Your task to perform on an android device: Open Chrome and go to settings Image 0: 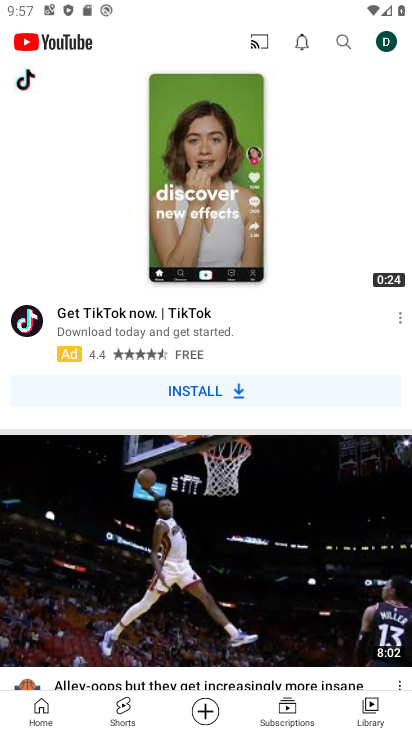
Step 0: press home button
Your task to perform on an android device: Open Chrome and go to settings Image 1: 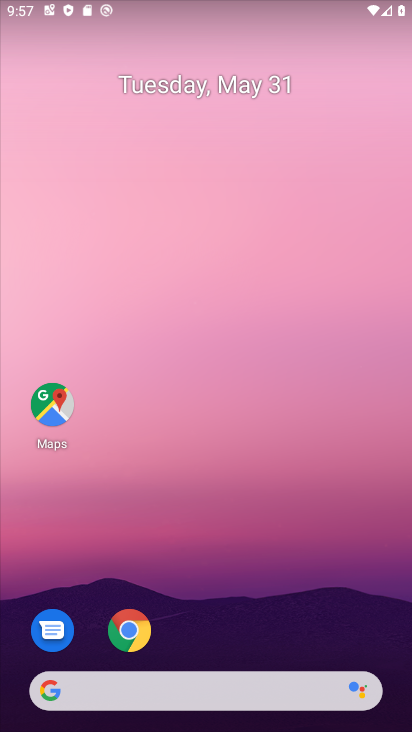
Step 1: drag from (228, 593) to (283, 135)
Your task to perform on an android device: Open Chrome and go to settings Image 2: 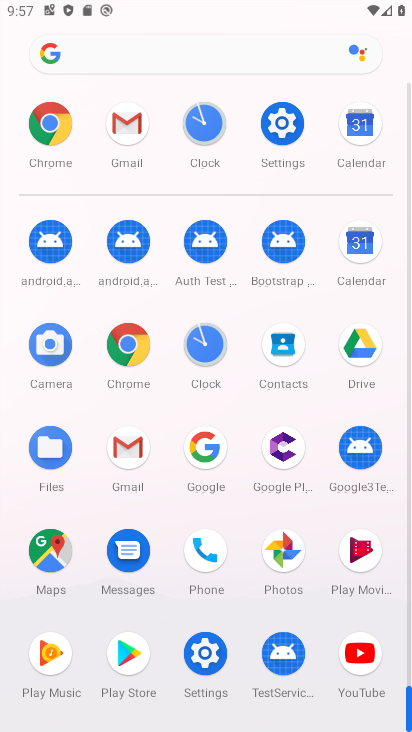
Step 2: click (121, 361)
Your task to perform on an android device: Open Chrome and go to settings Image 3: 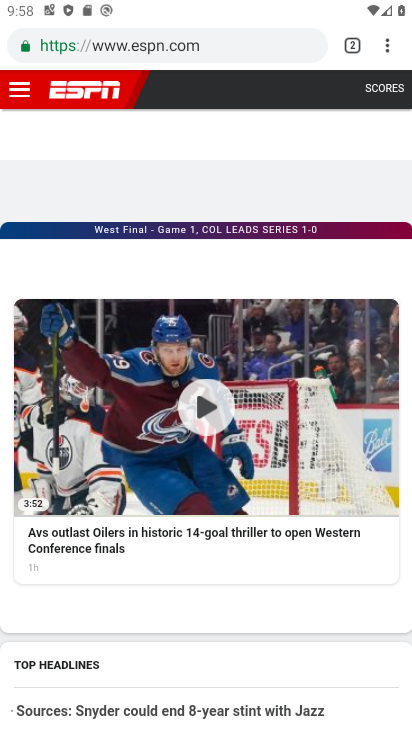
Step 3: click (385, 51)
Your task to perform on an android device: Open Chrome and go to settings Image 4: 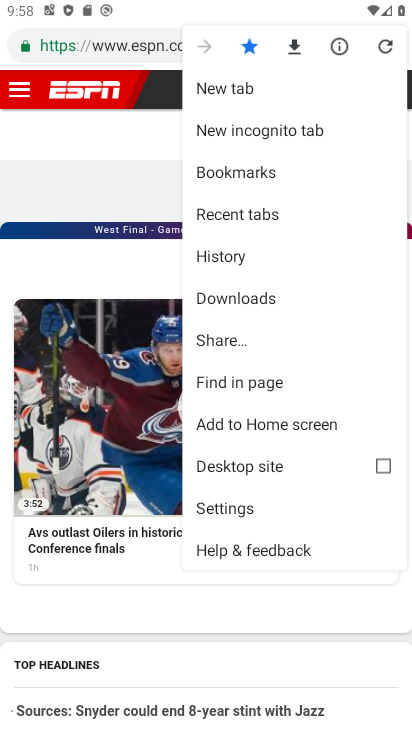
Step 4: click (213, 513)
Your task to perform on an android device: Open Chrome and go to settings Image 5: 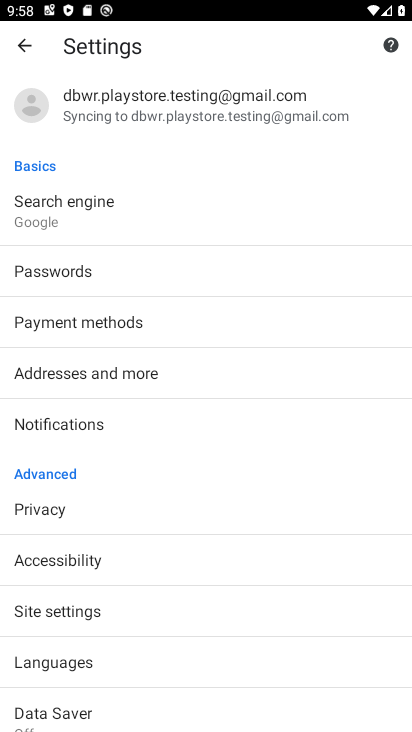
Step 5: task complete